Your task to perform on an android device: Search for the best running shoes on Nike. Image 0: 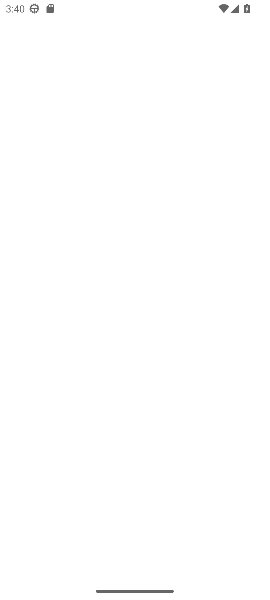
Step 0: press home button
Your task to perform on an android device: Search for the best running shoes on Nike. Image 1: 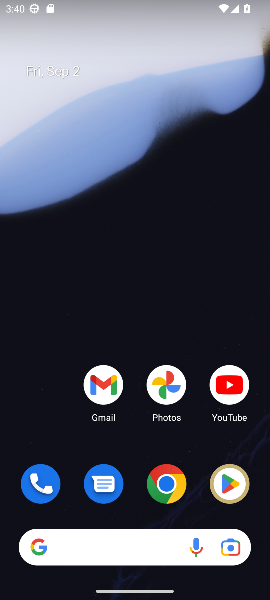
Step 1: click (168, 479)
Your task to perform on an android device: Search for the best running shoes on Nike. Image 2: 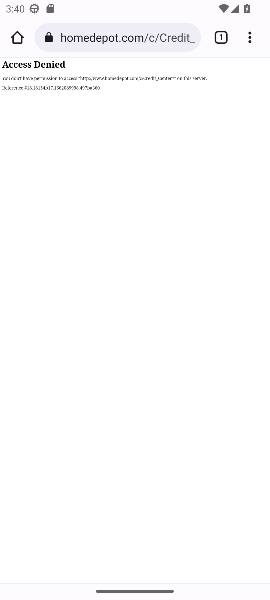
Step 2: click (140, 39)
Your task to perform on an android device: Search for the best running shoes on Nike. Image 3: 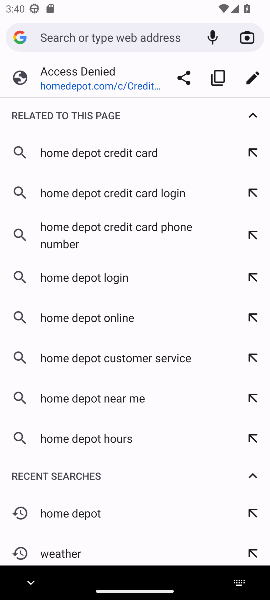
Step 3: type " Nike"
Your task to perform on an android device: Search for the best running shoes on Nike. Image 4: 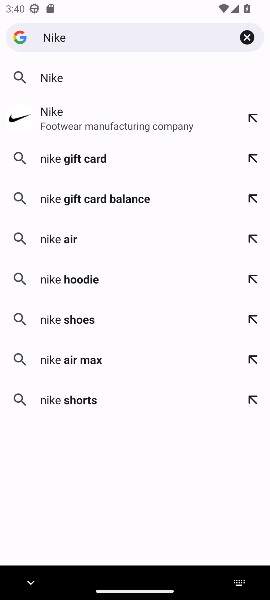
Step 4: click (66, 117)
Your task to perform on an android device: Search for the best running shoes on Nike. Image 5: 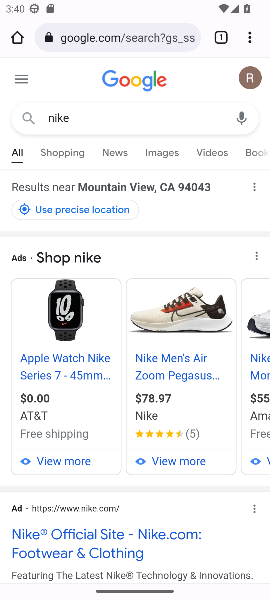
Step 5: drag from (122, 513) to (153, 374)
Your task to perform on an android device: Search for the best running shoes on Nike. Image 6: 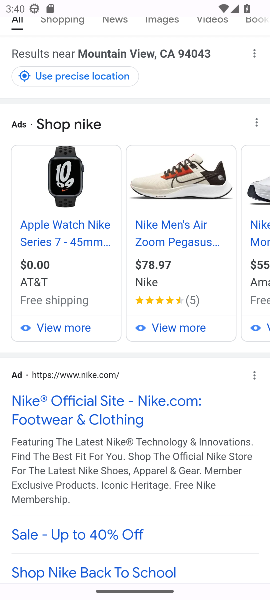
Step 6: click (90, 396)
Your task to perform on an android device: Search for the best running shoes on Nike. Image 7: 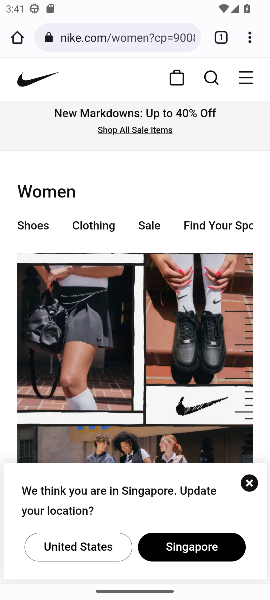
Step 7: click (209, 72)
Your task to perform on an android device: Search for the best running shoes on Nike. Image 8: 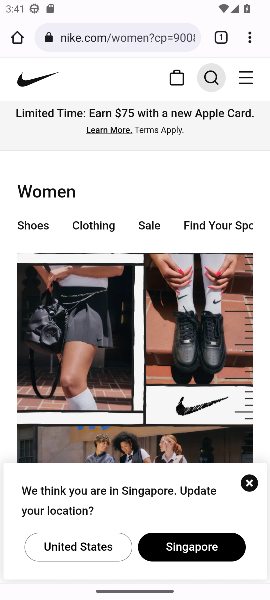
Step 8: click (208, 78)
Your task to perform on an android device: Search for the best running shoes on Nike. Image 9: 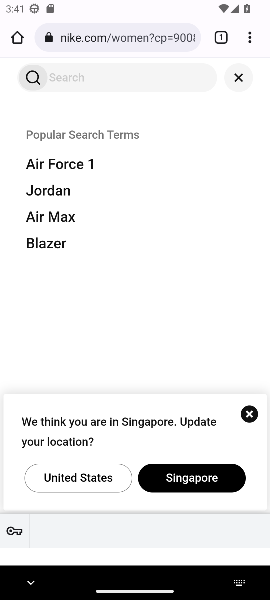
Step 9: type "running shoes"
Your task to perform on an android device: Search for the best running shoes on Nike. Image 10: 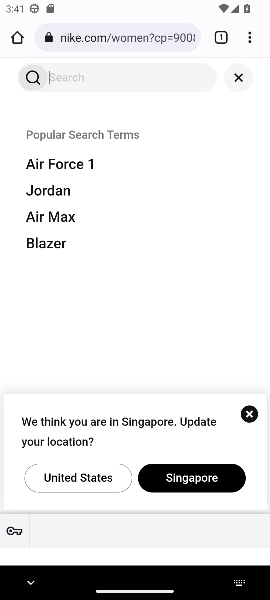
Step 10: press enter
Your task to perform on an android device: Search for the best running shoes on Nike. Image 11: 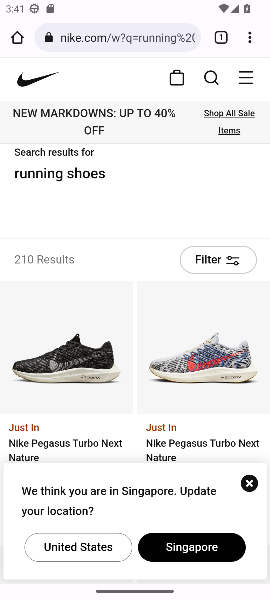
Step 11: click (211, 261)
Your task to perform on an android device: Search for the best running shoes on Nike. Image 12: 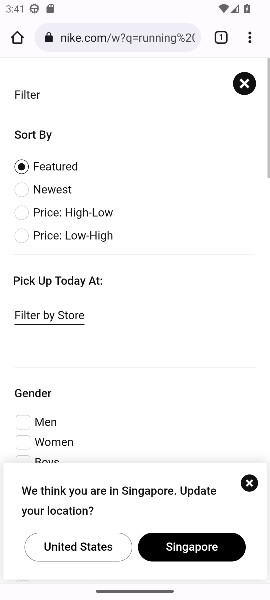
Step 12: drag from (146, 382) to (235, 212)
Your task to perform on an android device: Search for the best running shoes on Nike. Image 13: 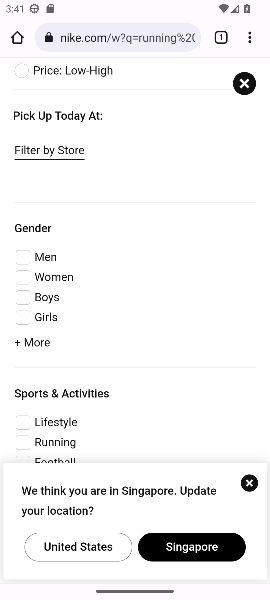
Step 13: click (248, 480)
Your task to perform on an android device: Search for the best running shoes on Nike. Image 14: 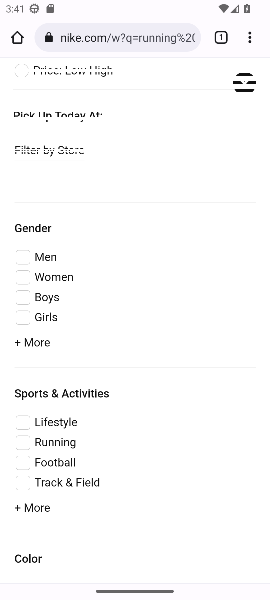
Step 14: drag from (203, 470) to (257, 228)
Your task to perform on an android device: Search for the best running shoes on Nike. Image 15: 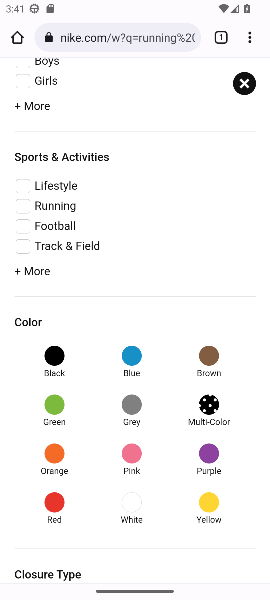
Step 15: drag from (144, 541) to (229, 205)
Your task to perform on an android device: Search for the best running shoes on Nike. Image 16: 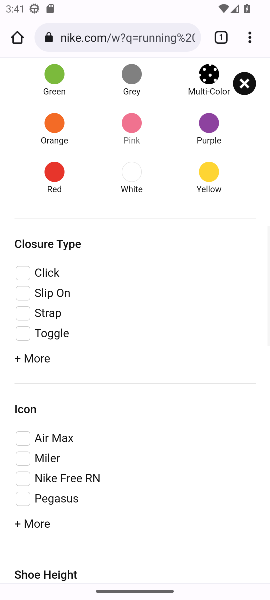
Step 16: drag from (146, 513) to (200, 122)
Your task to perform on an android device: Search for the best running shoes on Nike. Image 17: 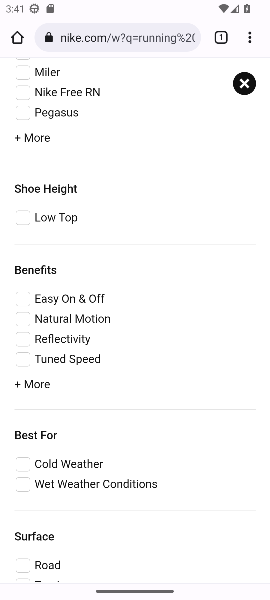
Step 17: drag from (189, 468) to (220, 172)
Your task to perform on an android device: Search for the best running shoes on Nike. Image 18: 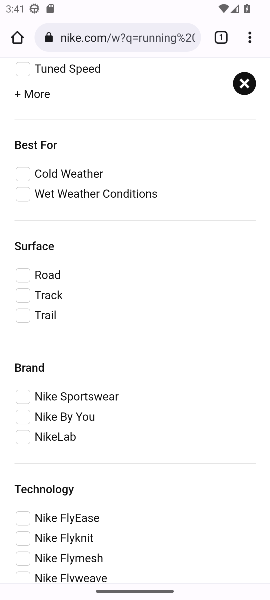
Step 18: drag from (171, 489) to (213, 189)
Your task to perform on an android device: Search for the best running shoes on Nike. Image 19: 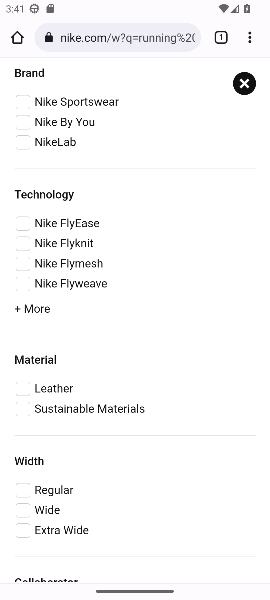
Step 19: drag from (161, 479) to (203, 175)
Your task to perform on an android device: Search for the best running shoes on Nike. Image 20: 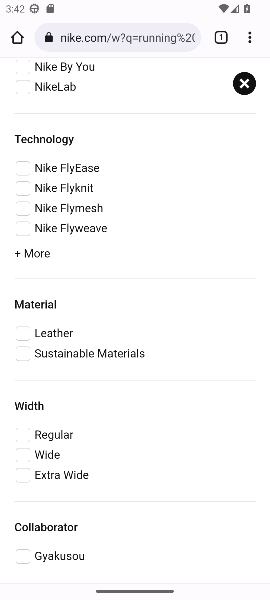
Step 20: drag from (152, 471) to (185, 149)
Your task to perform on an android device: Search for the best running shoes on Nike. Image 21: 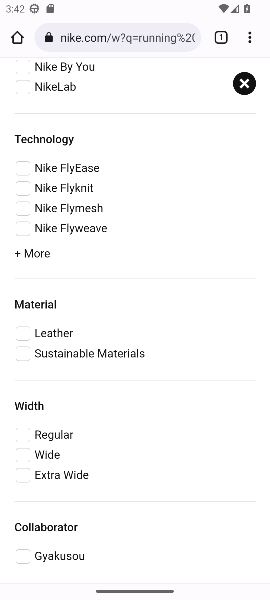
Step 21: drag from (198, 128) to (209, 497)
Your task to perform on an android device: Search for the best running shoes on Nike. Image 22: 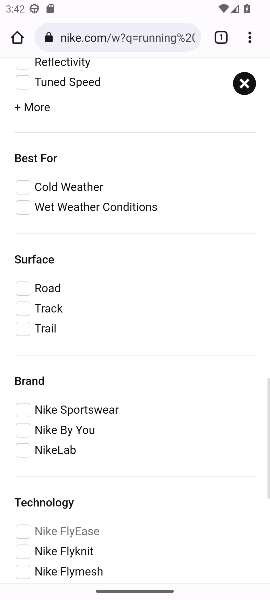
Step 22: drag from (192, 253) to (187, 454)
Your task to perform on an android device: Search for the best running shoes on Nike. Image 23: 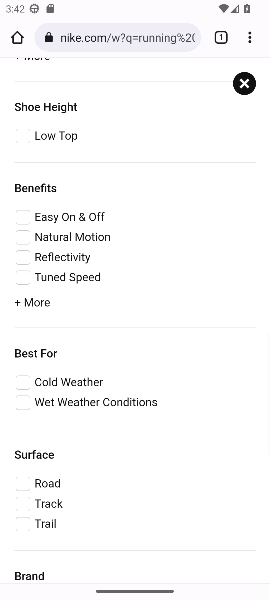
Step 23: drag from (209, 228) to (177, 486)
Your task to perform on an android device: Search for the best running shoes on Nike. Image 24: 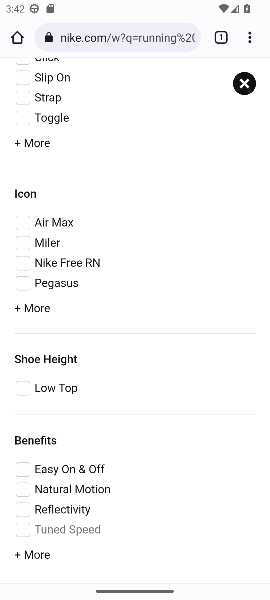
Step 24: drag from (189, 159) to (169, 457)
Your task to perform on an android device: Search for the best running shoes on Nike. Image 25: 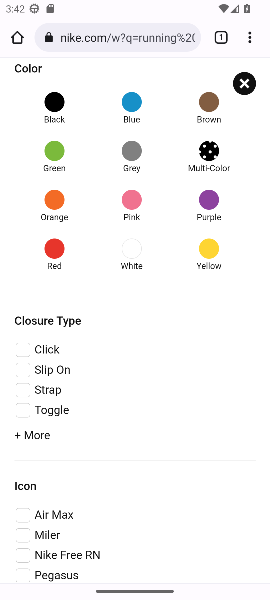
Step 25: drag from (175, 78) to (163, 430)
Your task to perform on an android device: Search for the best running shoes on Nike. Image 26: 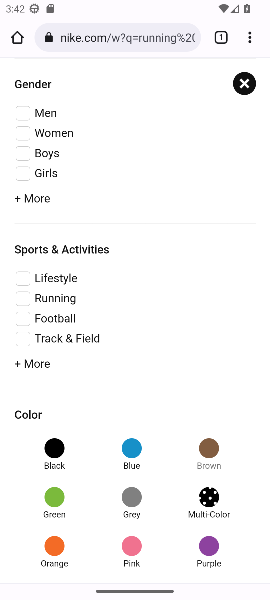
Step 26: drag from (195, 148) to (179, 455)
Your task to perform on an android device: Search for the best running shoes on Nike. Image 27: 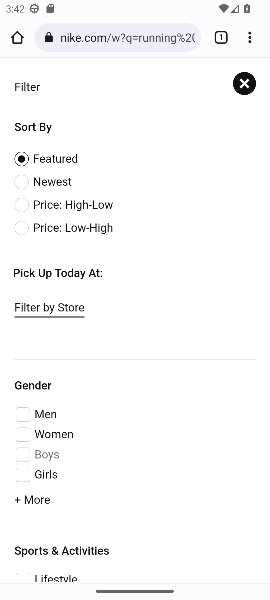
Step 27: drag from (202, 200) to (150, 426)
Your task to perform on an android device: Search for the best running shoes on Nike. Image 28: 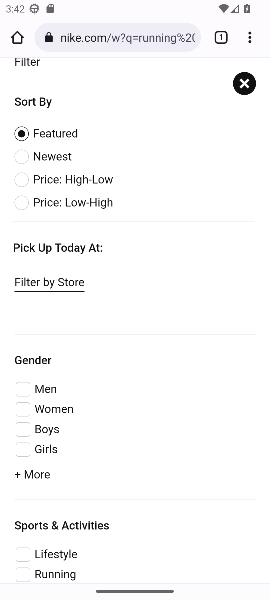
Step 28: click (244, 82)
Your task to perform on an android device: Search for the best running shoes on Nike. Image 29: 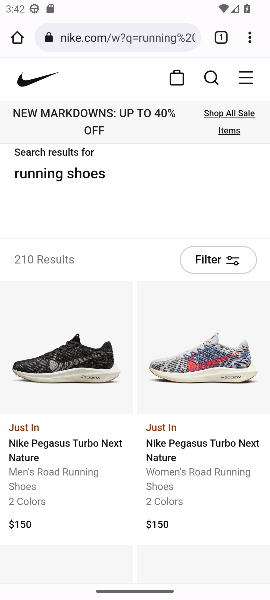
Step 29: task complete